Your task to perform on an android device: Search for a 4k TV on Best Buy Image 0: 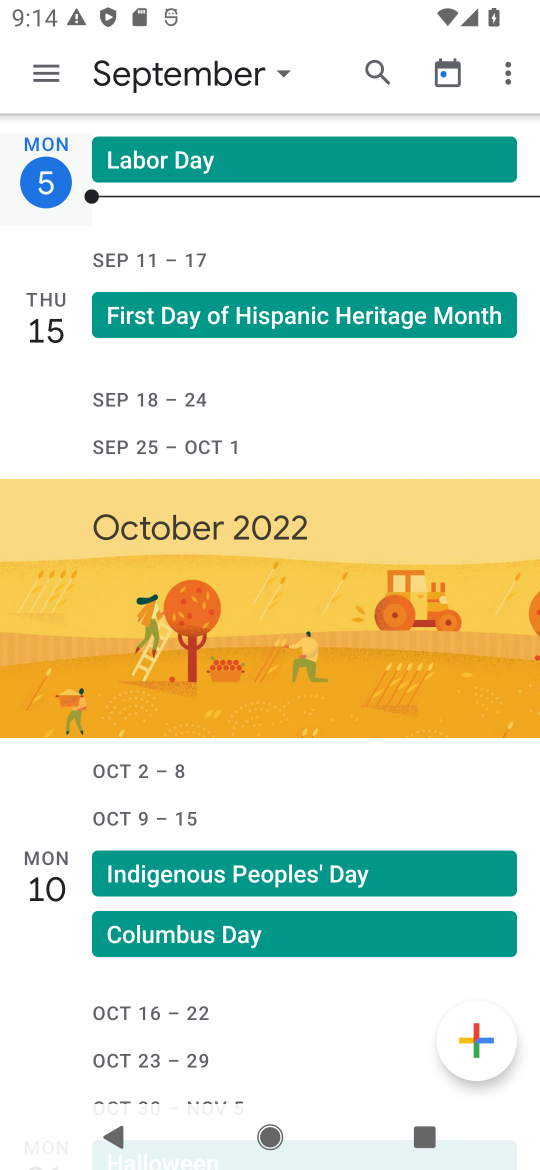
Step 0: press home button
Your task to perform on an android device: Search for a 4k TV on Best Buy Image 1: 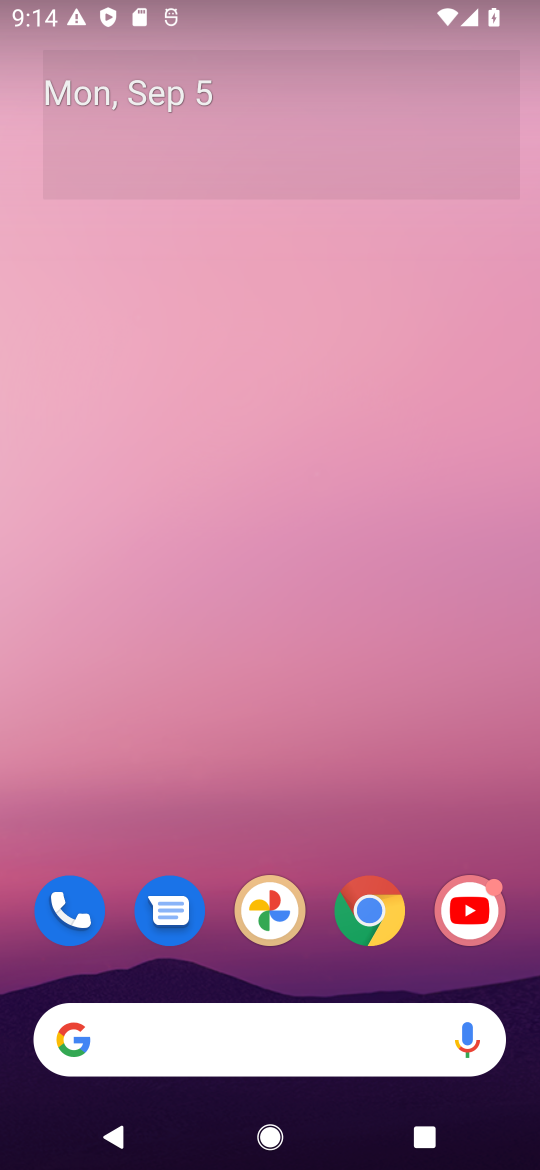
Step 1: click (367, 933)
Your task to perform on an android device: Search for a 4k TV on Best Buy Image 2: 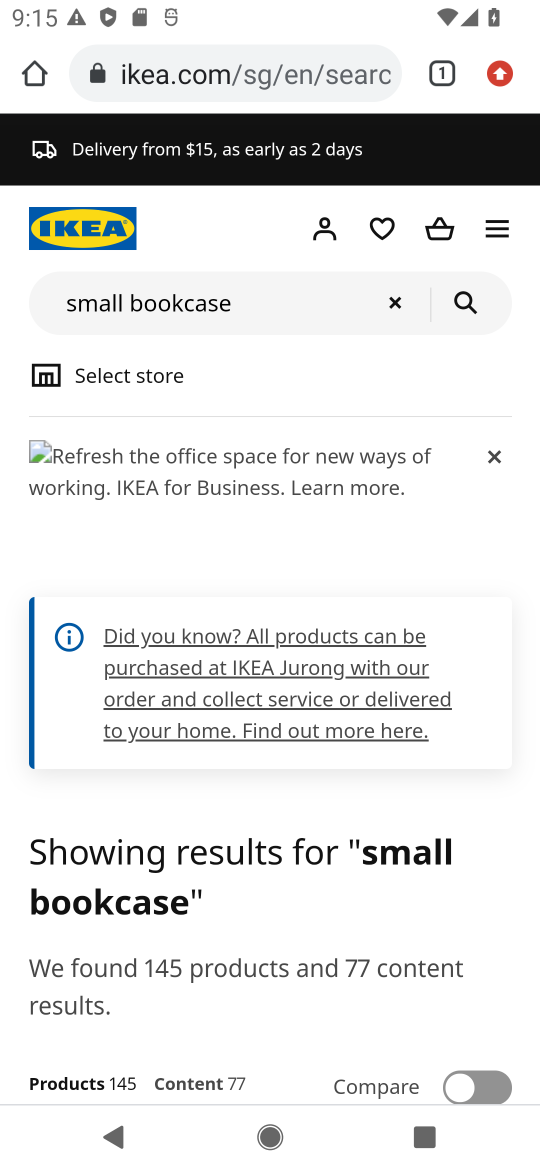
Step 2: click (325, 84)
Your task to perform on an android device: Search for a 4k TV on Best Buy Image 3: 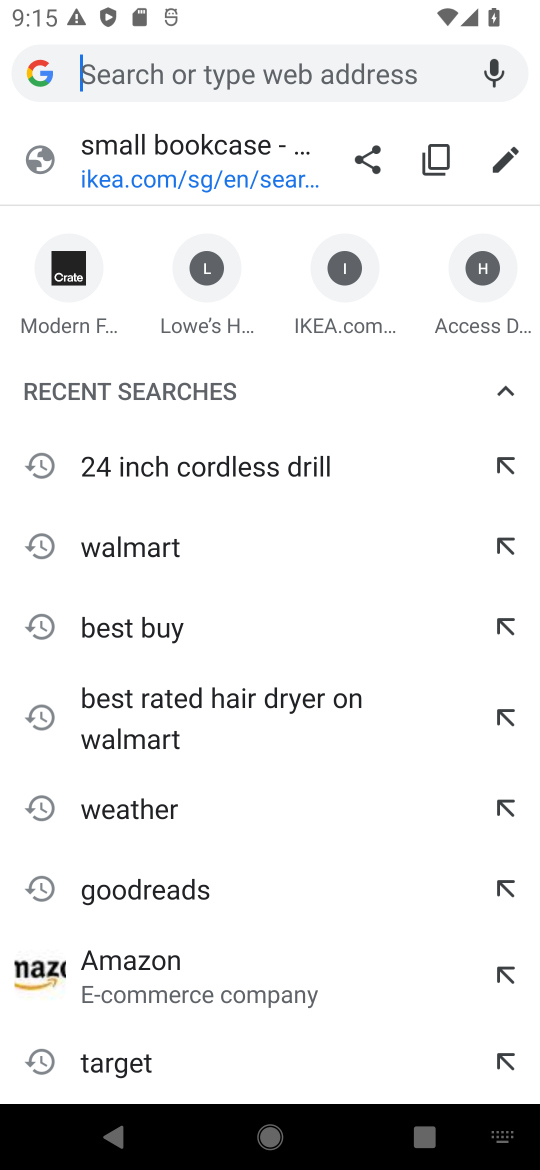
Step 3: type "best buy"
Your task to perform on an android device: Search for a 4k TV on Best Buy Image 4: 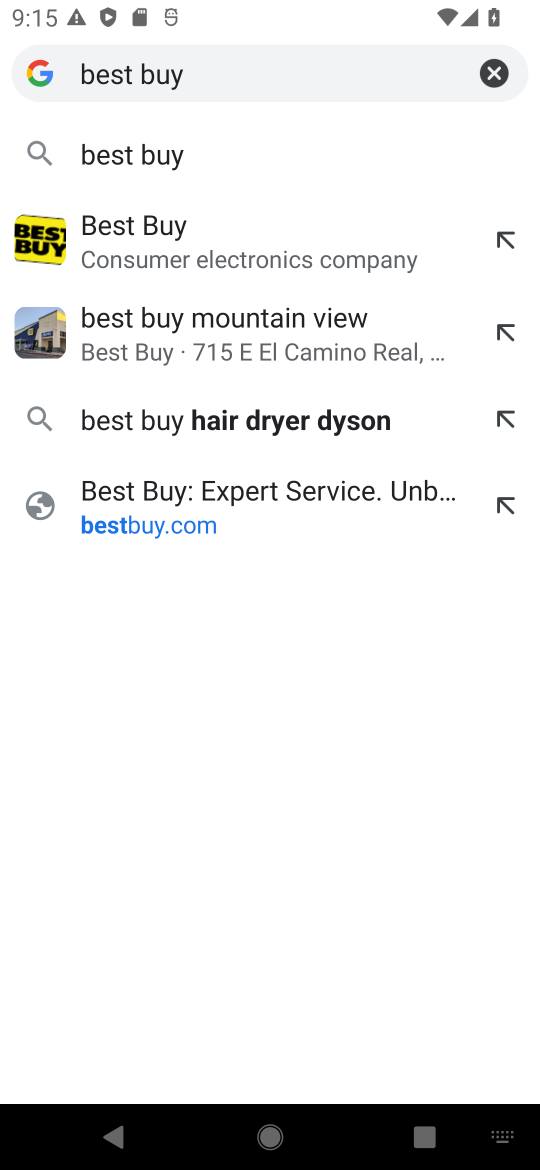
Step 4: click (289, 513)
Your task to perform on an android device: Search for a 4k TV on Best Buy Image 5: 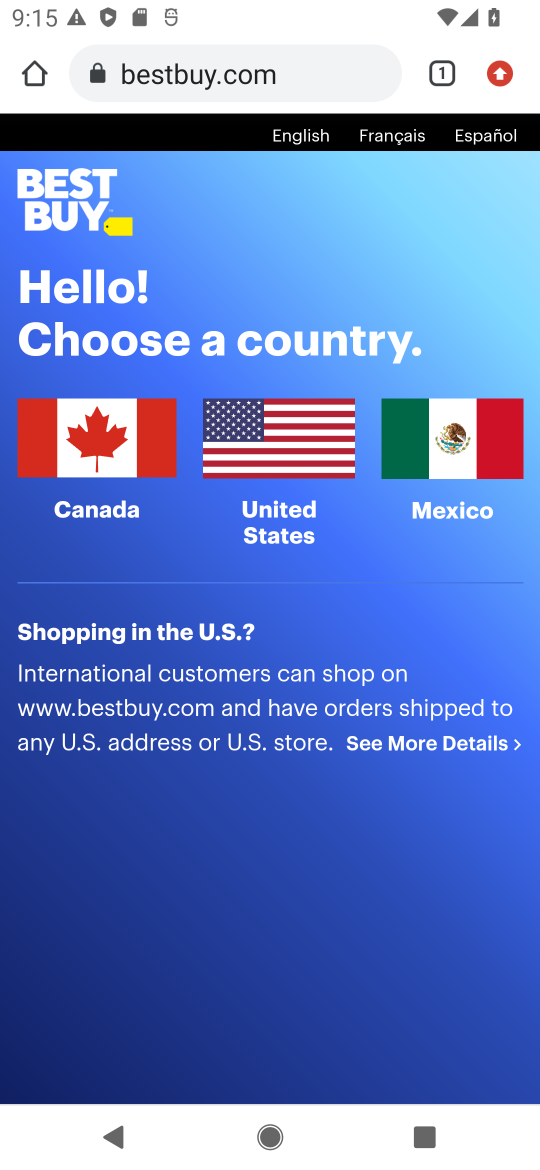
Step 5: click (275, 490)
Your task to perform on an android device: Search for a 4k TV on Best Buy Image 6: 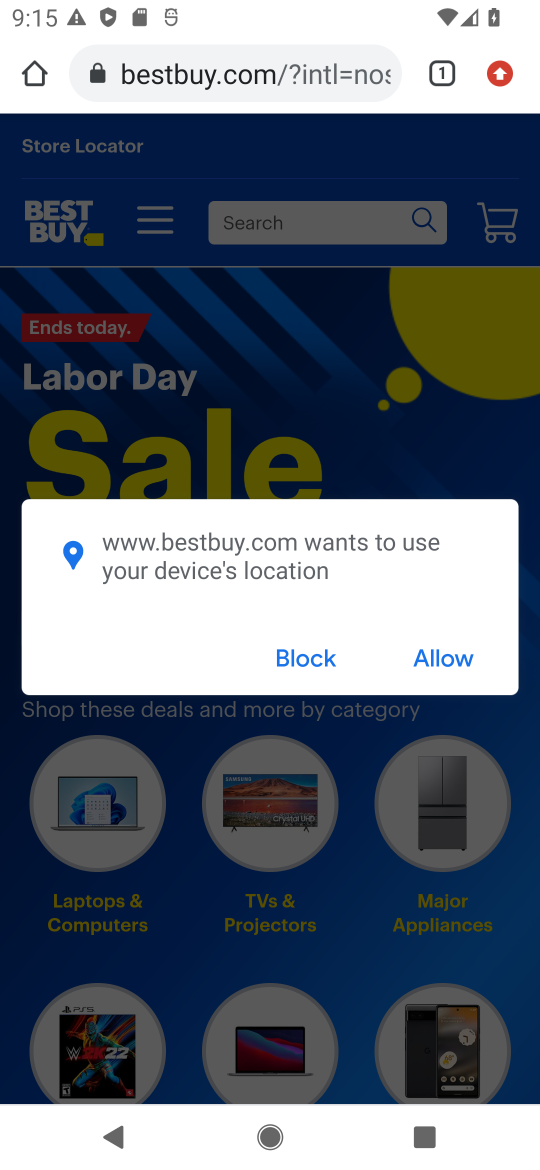
Step 6: click (436, 658)
Your task to perform on an android device: Search for a 4k TV on Best Buy Image 7: 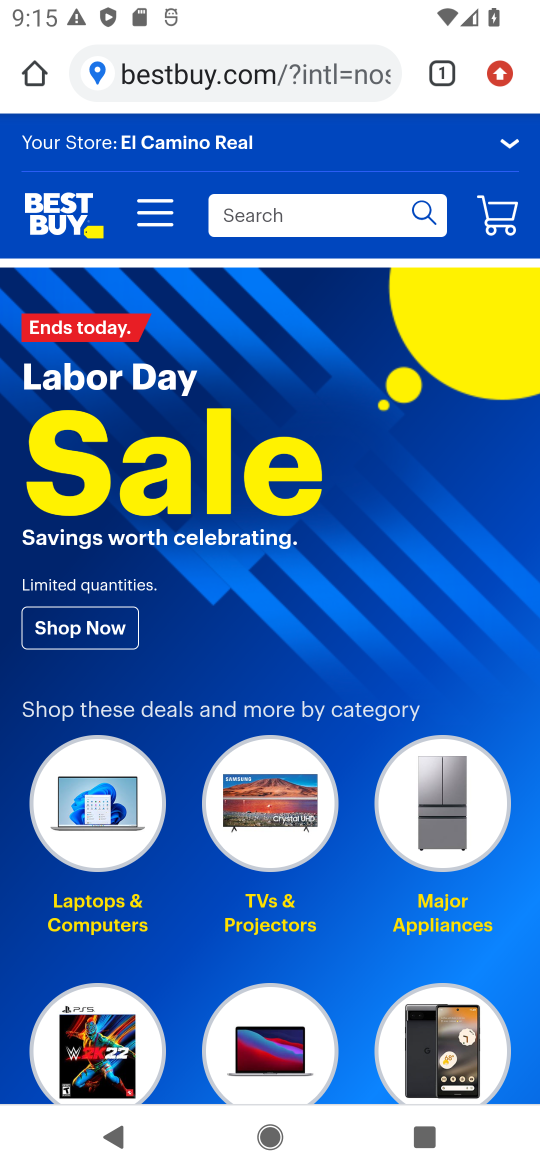
Step 7: click (305, 223)
Your task to perform on an android device: Search for a 4k TV on Best Buy Image 8: 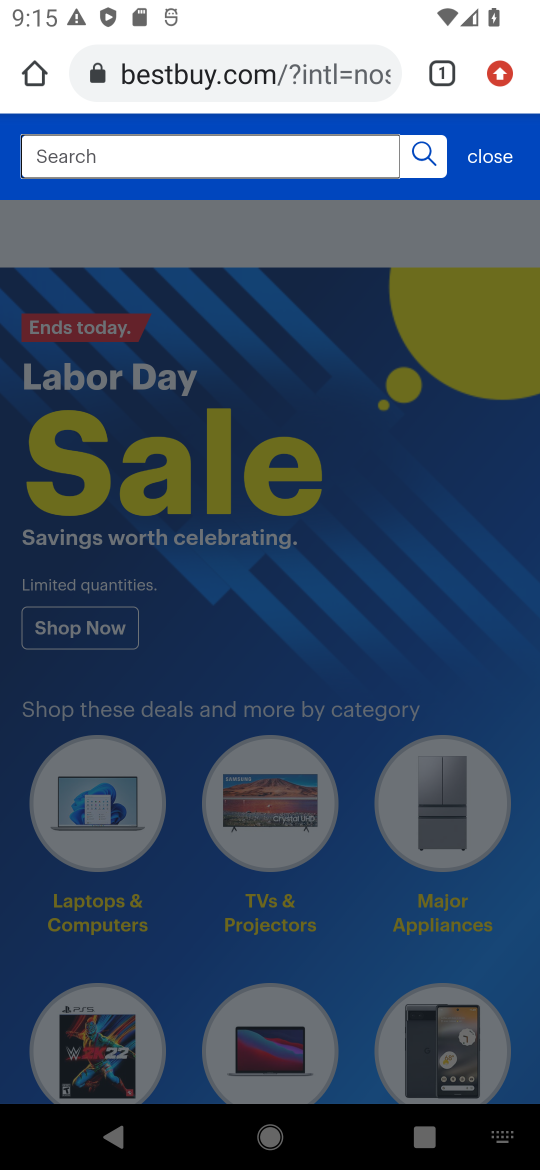
Step 8: type "4k tv"
Your task to perform on an android device: Search for a 4k TV on Best Buy Image 9: 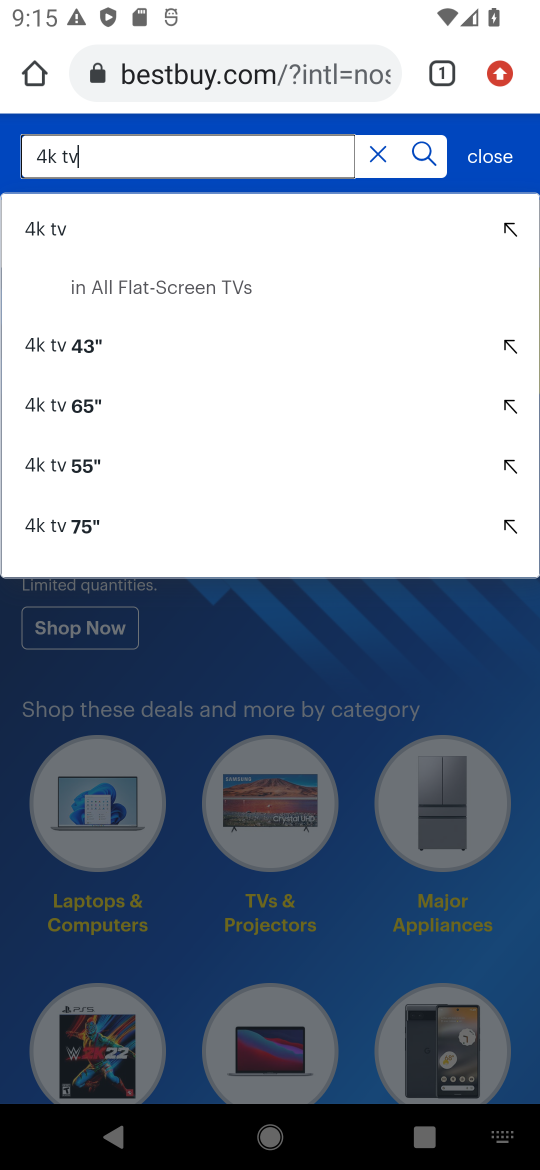
Step 9: click (173, 228)
Your task to perform on an android device: Search for a 4k TV on Best Buy Image 10: 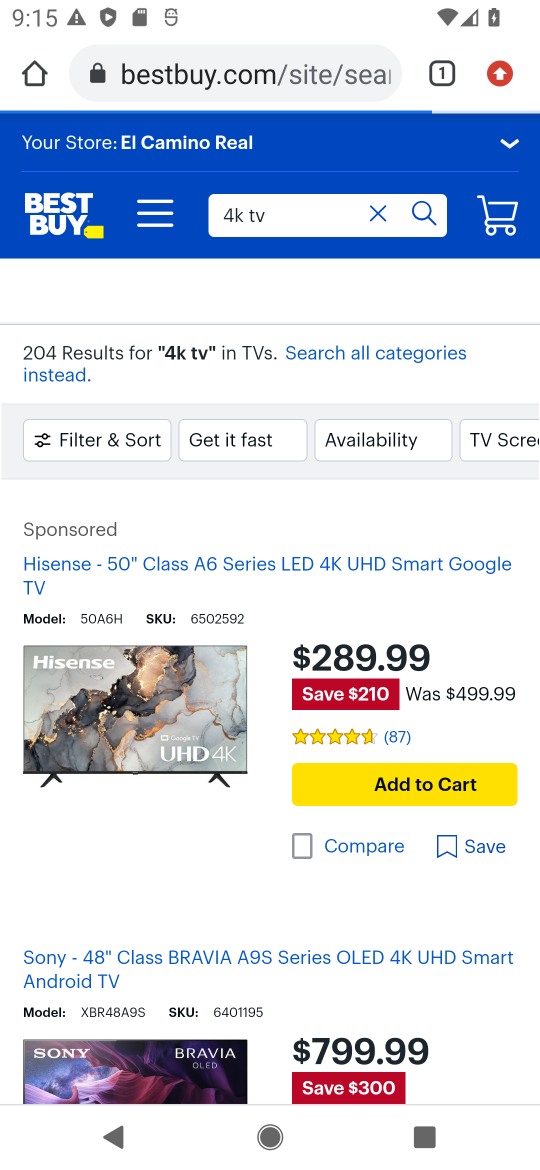
Step 10: press enter
Your task to perform on an android device: Search for a 4k TV on Best Buy Image 11: 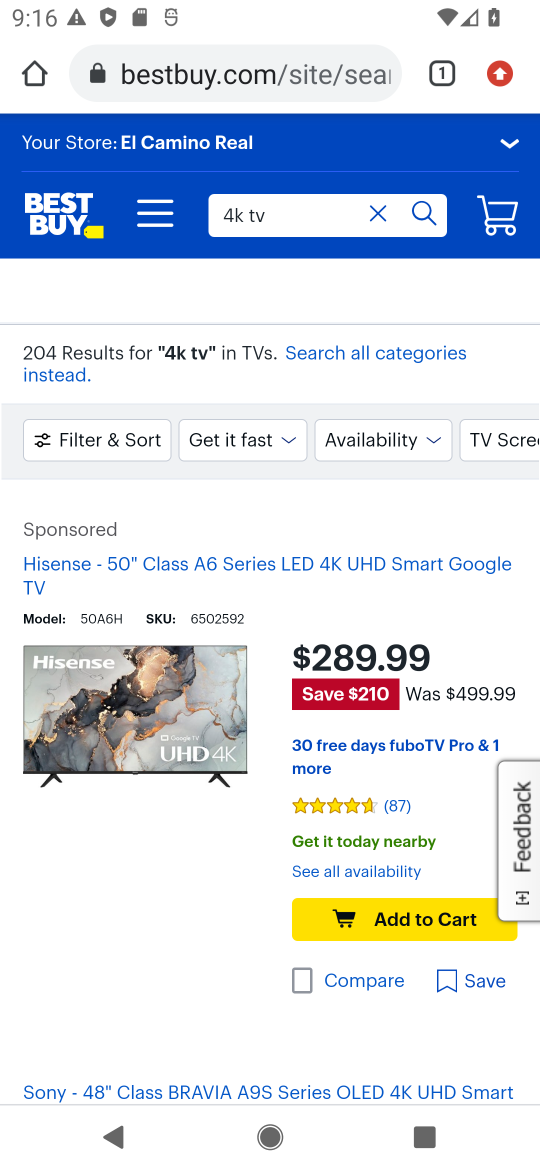
Step 11: task complete